Your task to perform on an android device: change the clock style Image 0: 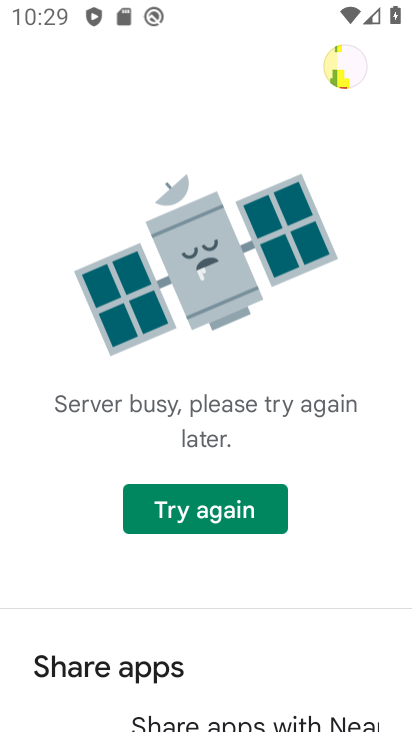
Step 0: press home button
Your task to perform on an android device: change the clock style Image 1: 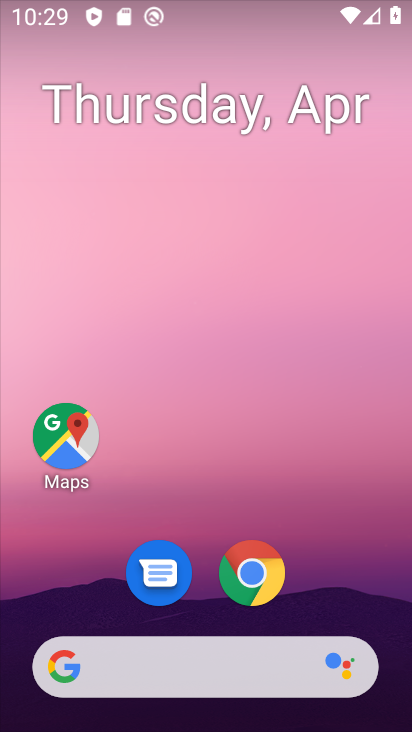
Step 1: drag from (323, 602) to (295, 120)
Your task to perform on an android device: change the clock style Image 2: 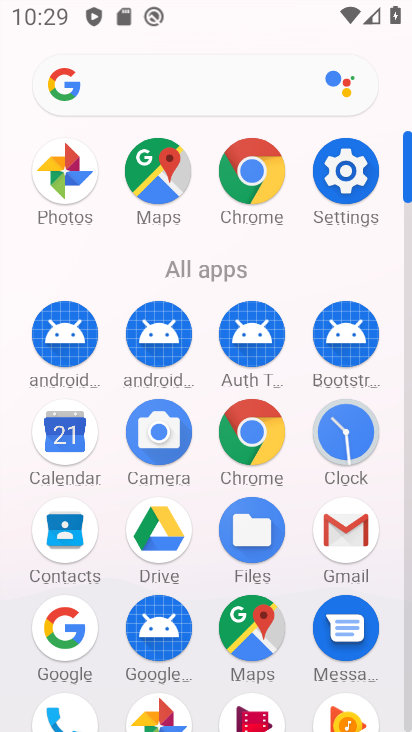
Step 2: click (355, 416)
Your task to perform on an android device: change the clock style Image 3: 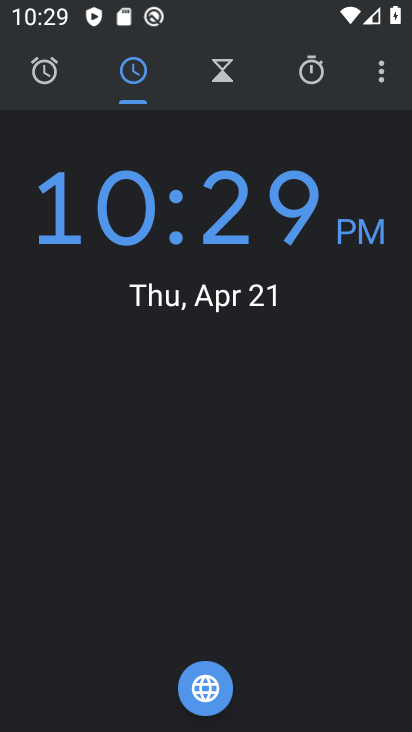
Step 3: click (378, 78)
Your task to perform on an android device: change the clock style Image 4: 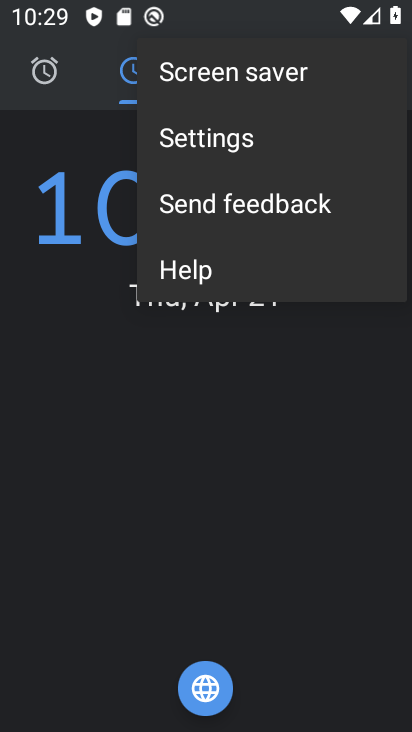
Step 4: click (348, 108)
Your task to perform on an android device: change the clock style Image 5: 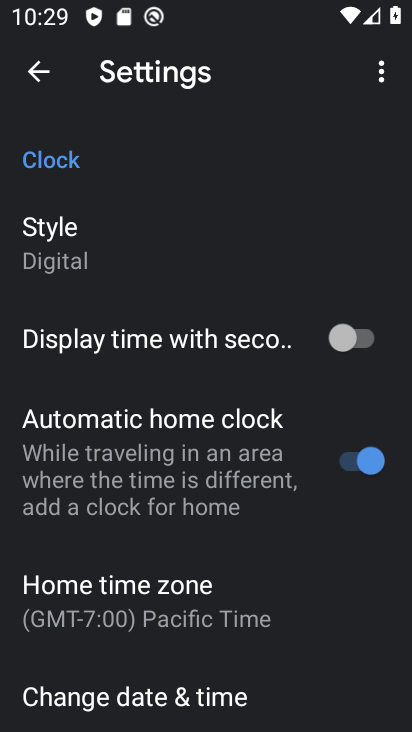
Step 5: click (151, 290)
Your task to perform on an android device: change the clock style Image 6: 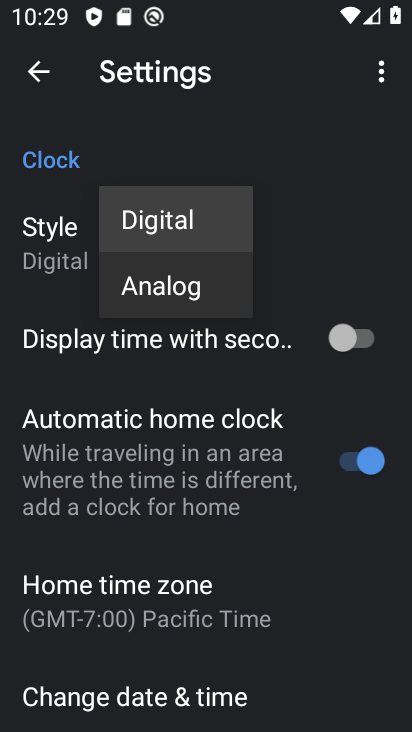
Step 6: click (135, 284)
Your task to perform on an android device: change the clock style Image 7: 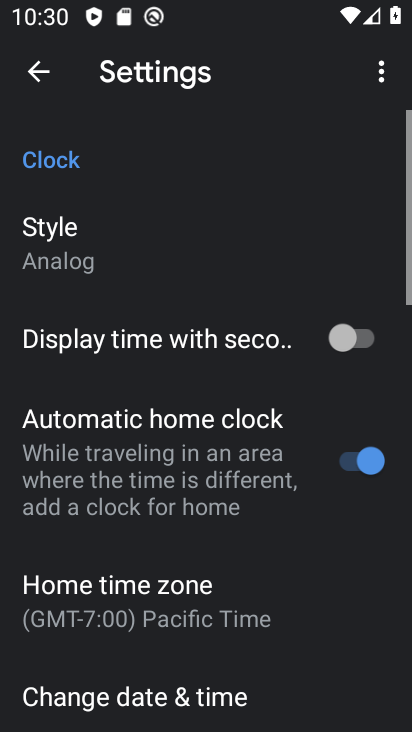
Step 7: task complete